Your task to perform on an android device: Open Google Maps and go to "Timeline" Image 0: 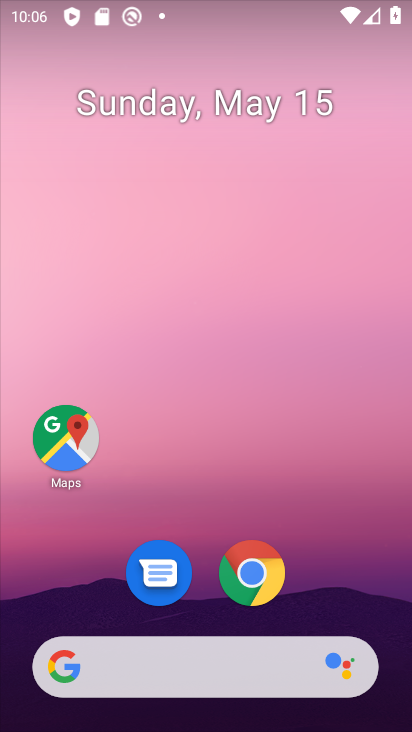
Step 0: click (61, 427)
Your task to perform on an android device: Open Google Maps and go to "Timeline" Image 1: 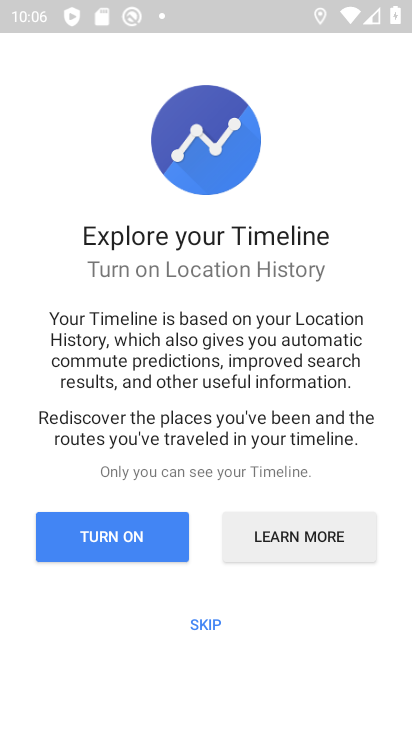
Step 1: click (153, 549)
Your task to perform on an android device: Open Google Maps and go to "Timeline" Image 2: 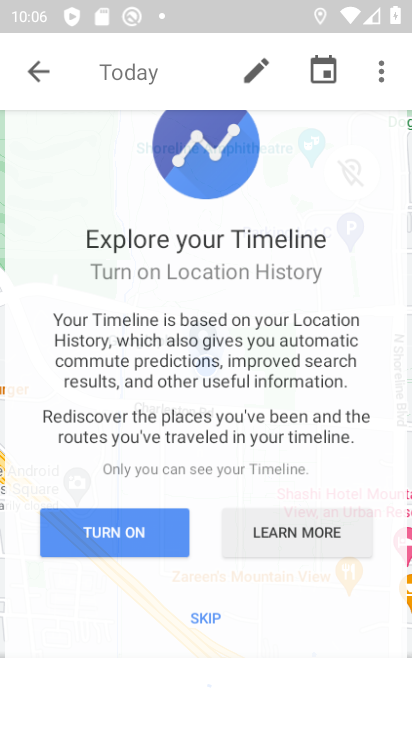
Step 2: task complete